Your task to perform on an android device: When is my next appointment? Image 0: 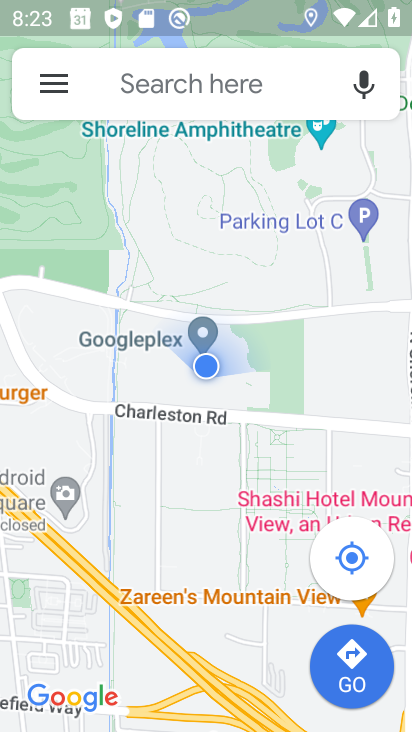
Step 0: press back button
Your task to perform on an android device: When is my next appointment? Image 1: 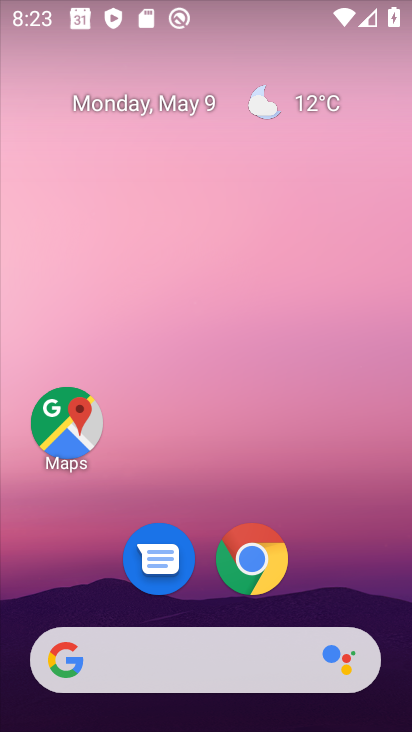
Step 1: drag from (210, 584) to (265, 333)
Your task to perform on an android device: When is my next appointment? Image 2: 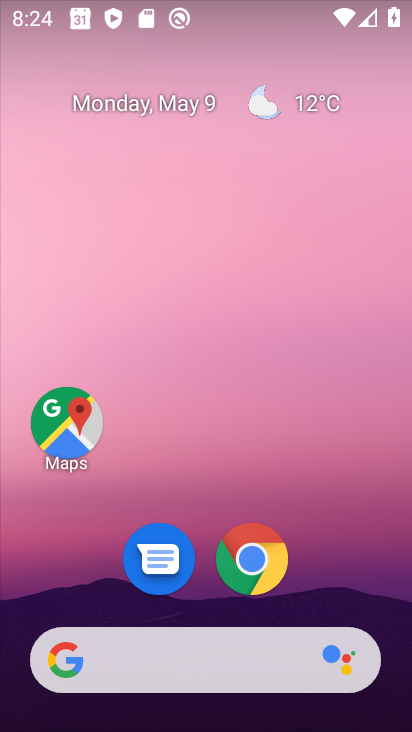
Step 2: drag from (220, 616) to (289, 57)
Your task to perform on an android device: When is my next appointment? Image 3: 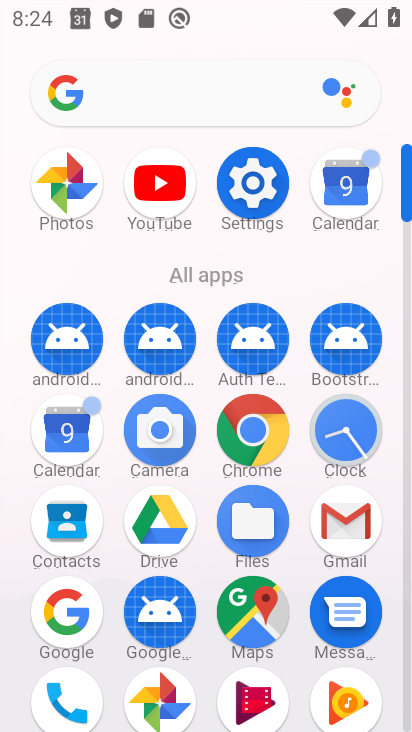
Step 3: click (87, 435)
Your task to perform on an android device: When is my next appointment? Image 4: 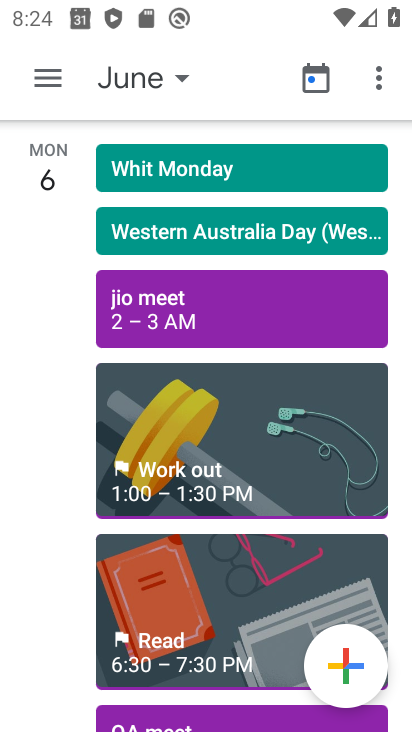
Step 4: drag from (221, 668) to (293, 405)
Your task to perform on an android device: When is my next appointment? Image 5: 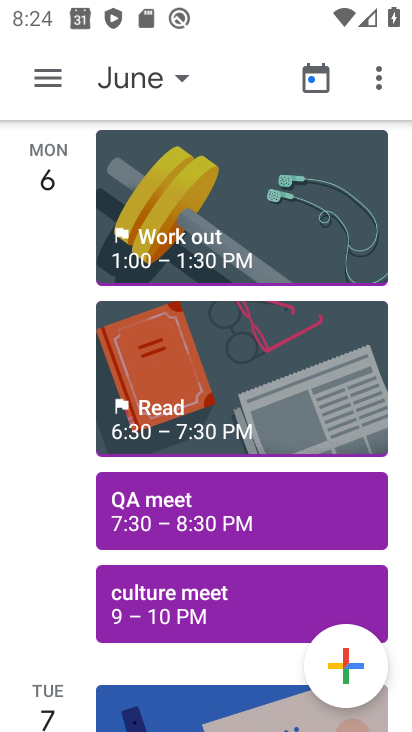
Step 5: click (106, 73)
Your task to perform on an android device: When is my next appointment? Image 6: 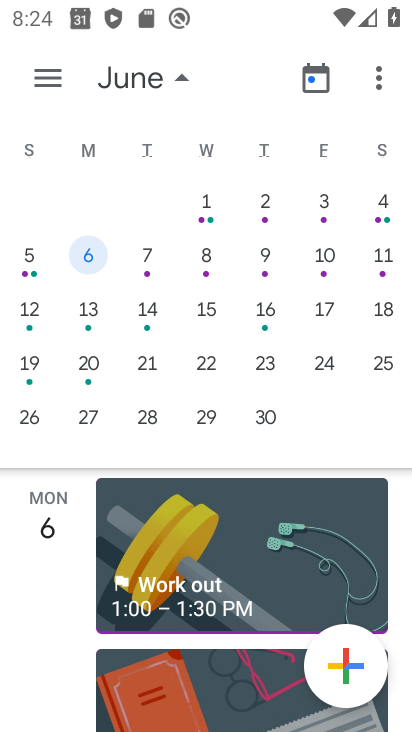
Step 6: drag from (45, 272) to (335, 311)
Your task to perform on an android device: When is my next appointment? Image 7: 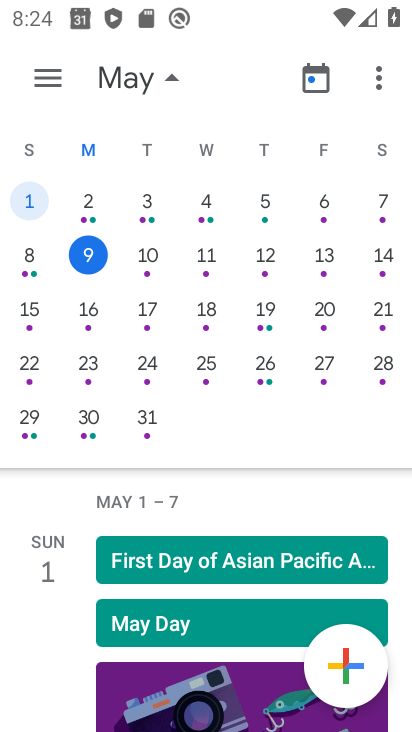
Step 7: click (78, 252)
Your task to perform on an android device: When is my next appointment? Image 8: 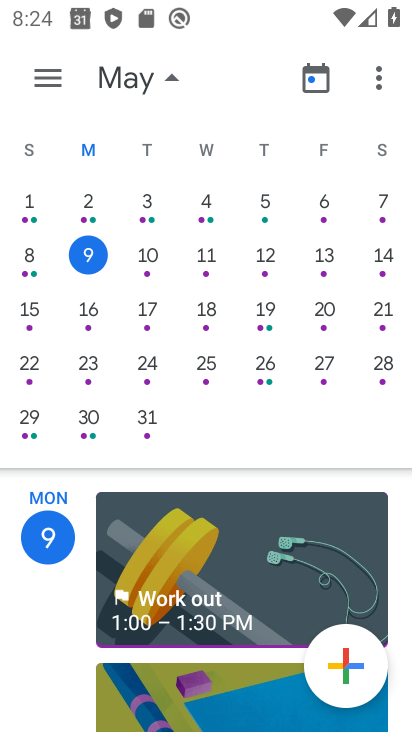
Step 8: drag from (235, 632) to (347, 172)
Your task to perform on an android device: When is my next appointment? Image 9: 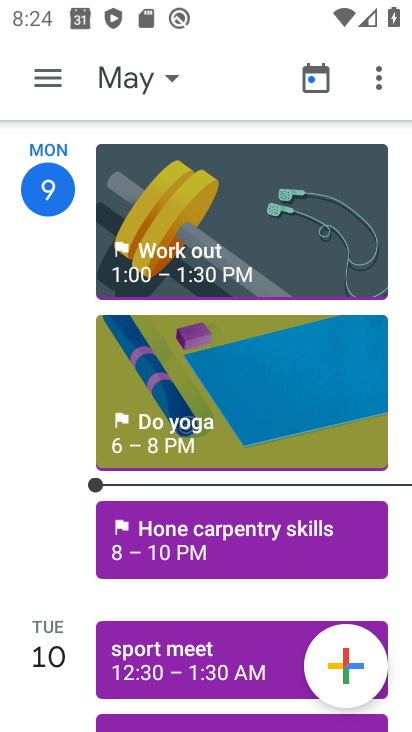
Step 9: drag from (213, 699) to (245, 411)
Your task to perform on an android device: When is my next appointment? Image 10: 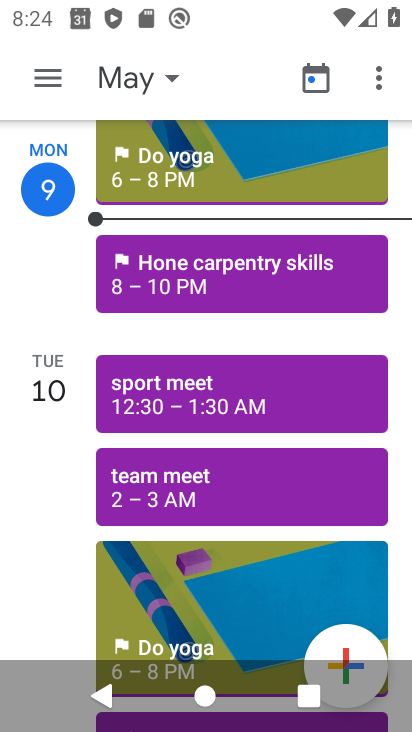
Step 10: click (162, 488)
Your task to perform on an android device: When is my next appointment? Image 11: 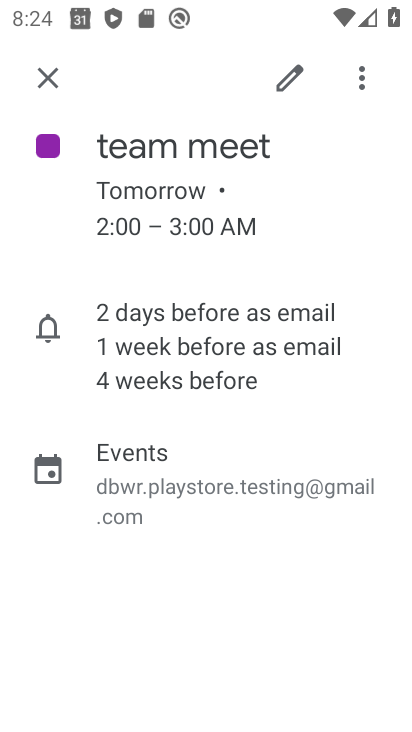
Step 11: task complete